Your task to perform on an android device: change the clock display to analog Image 0: 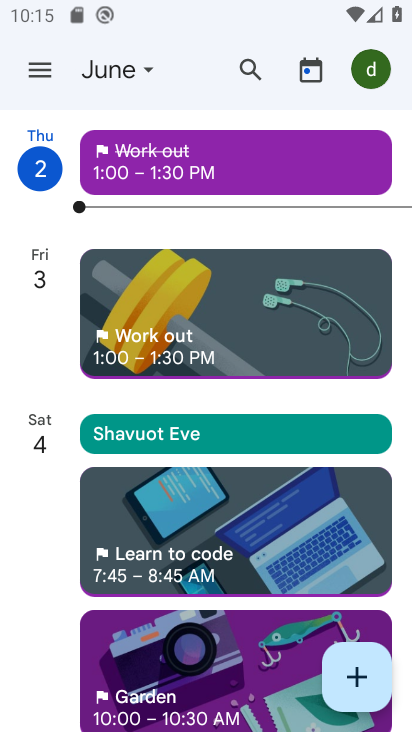
Step 0: press home button
Your task to perform on an android device: change the clock display to analog Image 1: 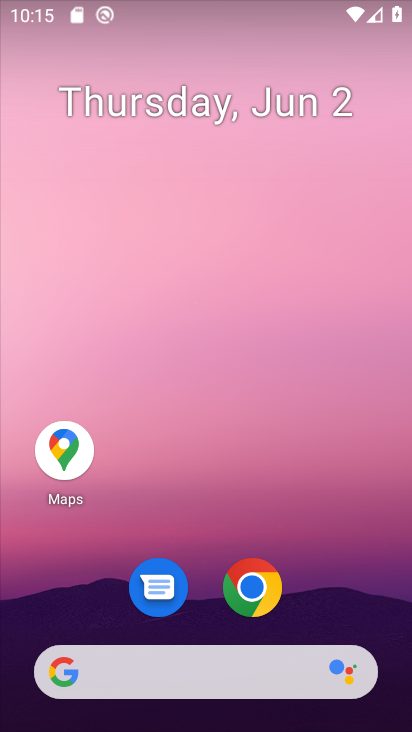
Step 1: drag from (336, 595) to (338, 197)
Your task to perform on an android device: change the clock display to analog Image 2: 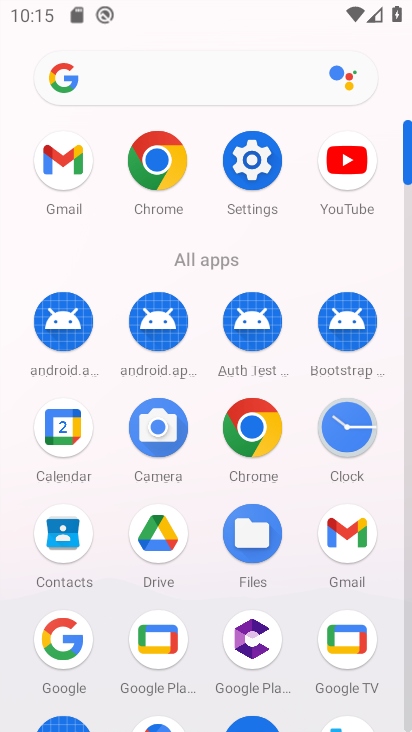
Step 2: click (341, 423)
Your task to perform on an android device: change the clock display to analog Image 3: 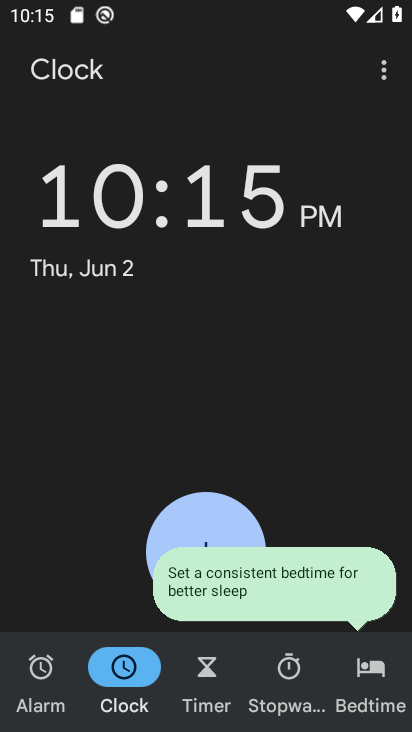
Step 3: click (392, 61)
Your task to perform on an android device: change the clock display to analog Image 4: 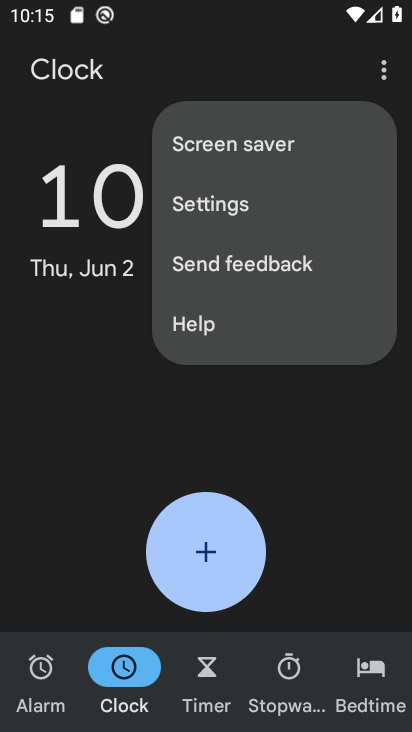
Step 4: click (292, 199)
Your task to perform on an android device: change the clock display to analog Image 5: 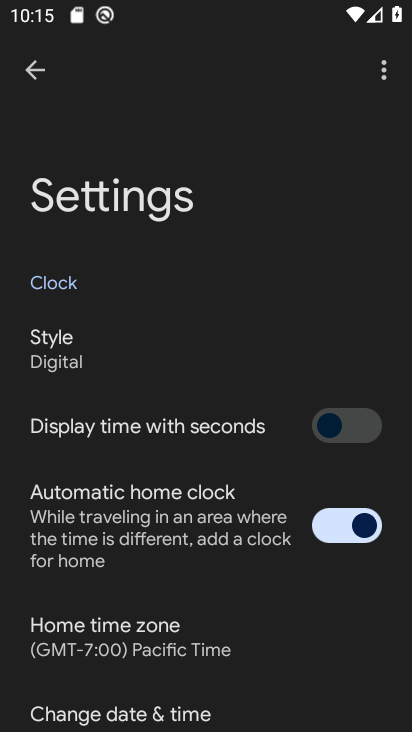
Step 5: click (176, 352)
Your task to perform on an android device: change the clock display to analog Image 6: 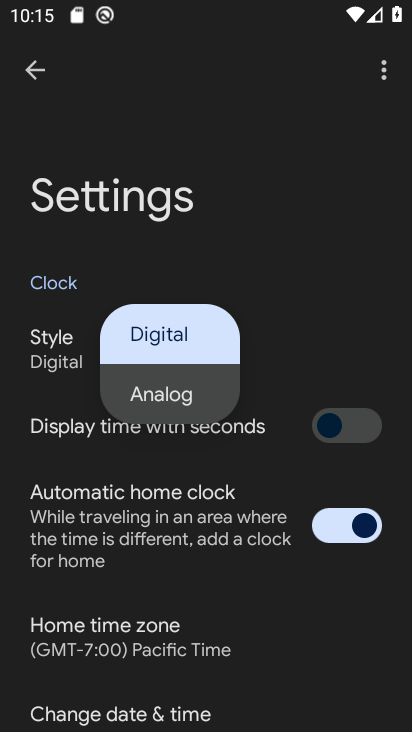
Step 6: click (174, 388)
Your task to perform on an android device: change the clock display to analog Image 7: 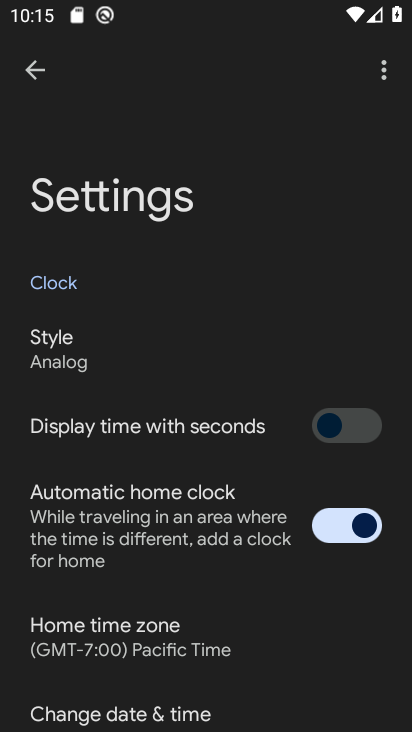
Step 7: task complete